Your task to perform on an android device: Open calendar and show me the first week of next month Image 0: 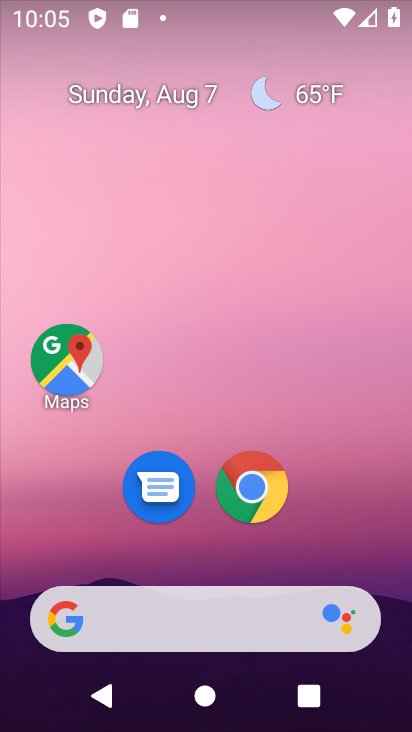
Step 0: drag from (380, 718) to (284, 108)
Your task to perform on an android device: Open calendar and show me the first week of next month Image 1: 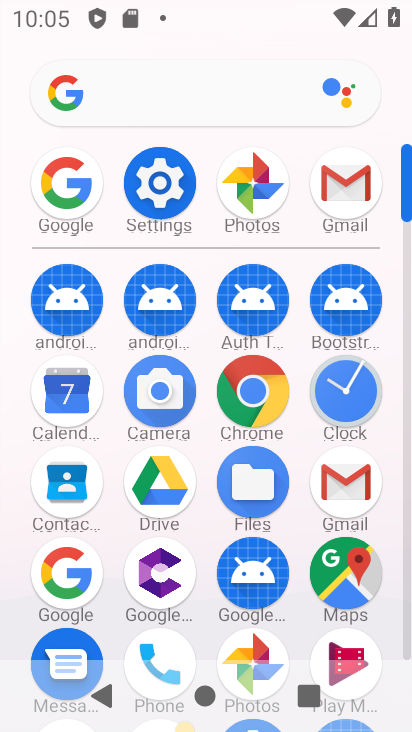
Step 1: click (67, 485)
Your task to perform on an android device: Open calendar and show me the first week of next month Image 2: 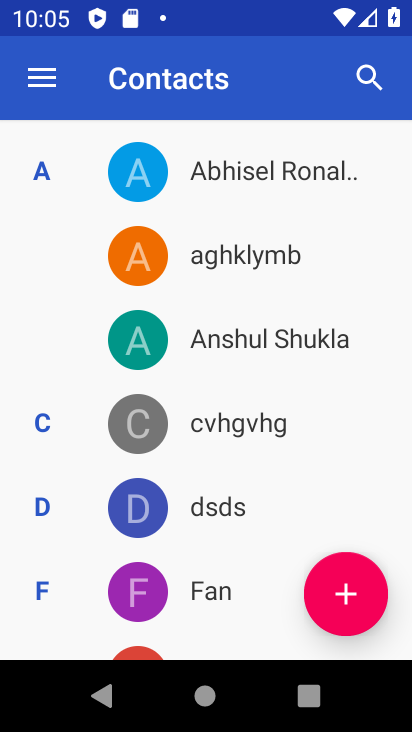
Step 2: press home button
Your task to perform on an android device: Open calendar and show me the first week of next month Image 3: 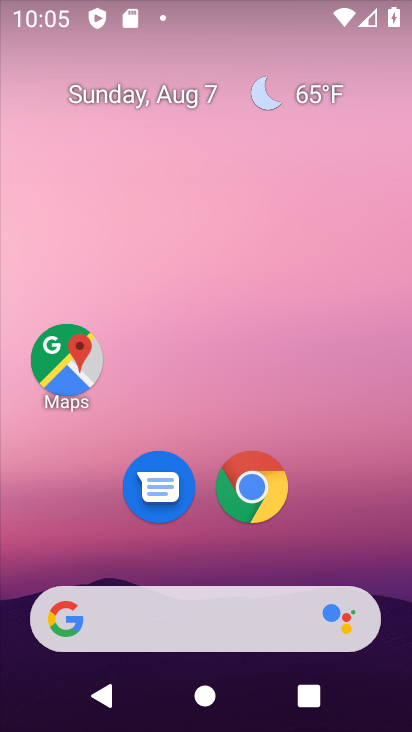
Step 3: drag from (334, 589) to (238, 68)
Your task to perform on an android device: Open calendar and show me the first week of next month Image 4: 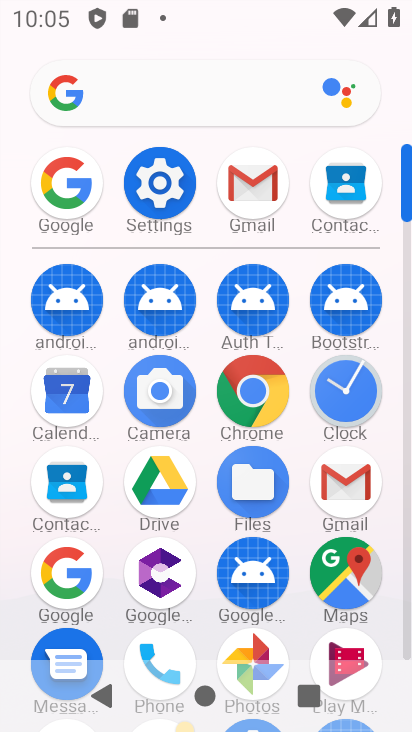
Step 4: click (77, 408)
Your task to perform on an android device: Open calendar and show me the first week of next month Image 5: 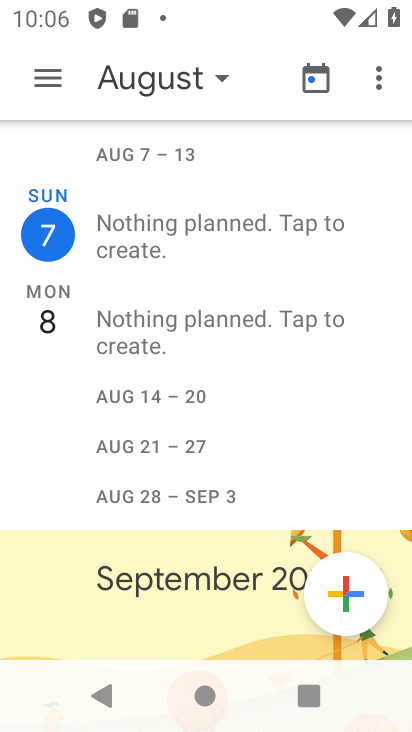
Step 5: click (225, 77)
Your task to perform on an android device: Open calendar and show me the first week of next month Image 6: 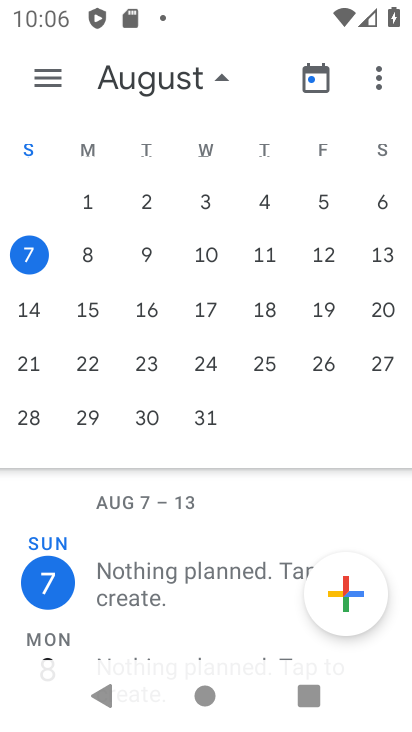
Step 6: drag from (397, 290) to (45, 297)
Your task to perform on an android device: Open calendar and show me the first week of next month Image 7: 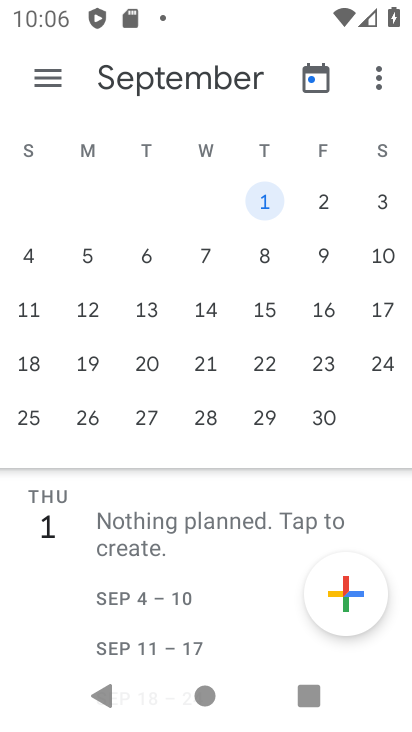
Step 7: click (252, 191)
Your task to perform on an android device: Open calendar and show me the first week of next month Image 8: 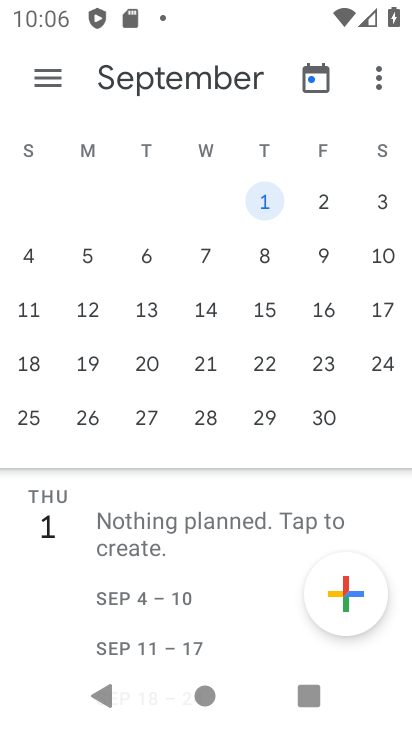
Step 8: click (59, 72)
Your task to perform on an android device: Open calendar and show me the first week of next month Image 9: 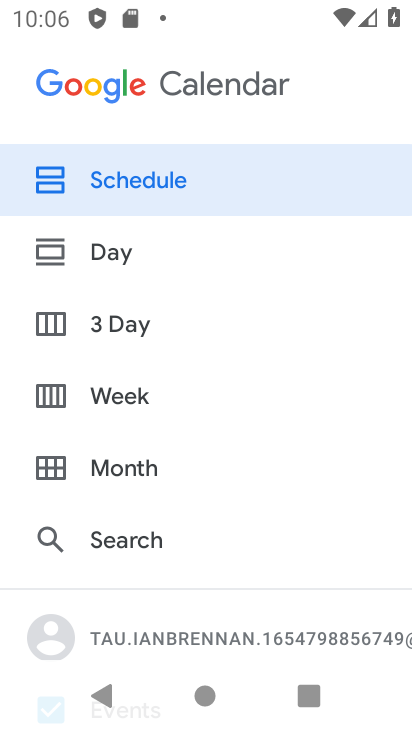
Step 9: click (96, 395)
Your task to perform on an android device: Open calendar and show me the first week of next month Image 10: 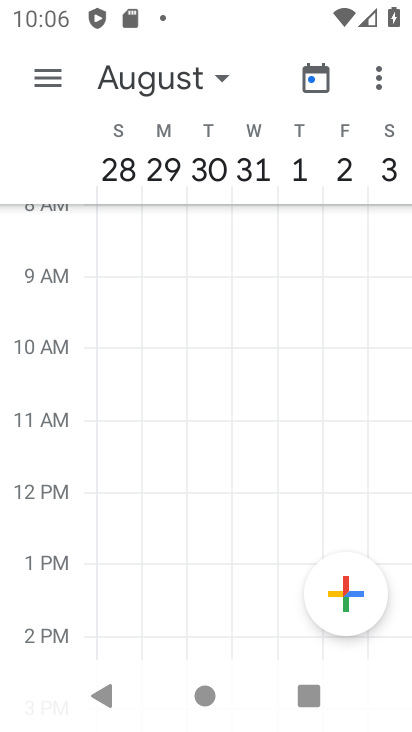
Step 10: task complete